Your task to perform on an android device: turn on sleep mode Image 0: 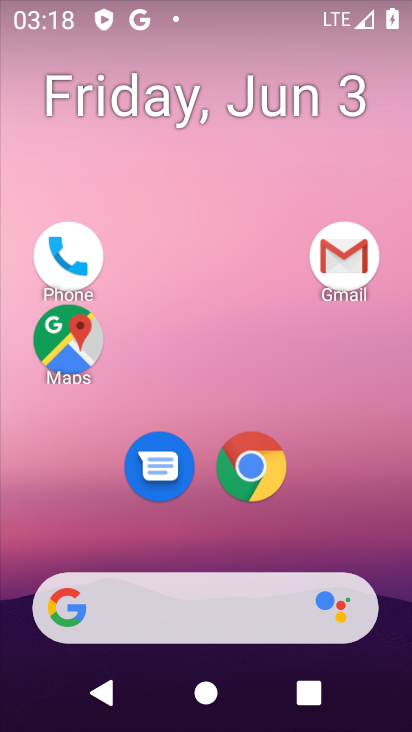
Step 0: drag from (205, 553) to (207, 138)
Your task to perform on an android device: turn on sleep mode Image 1: 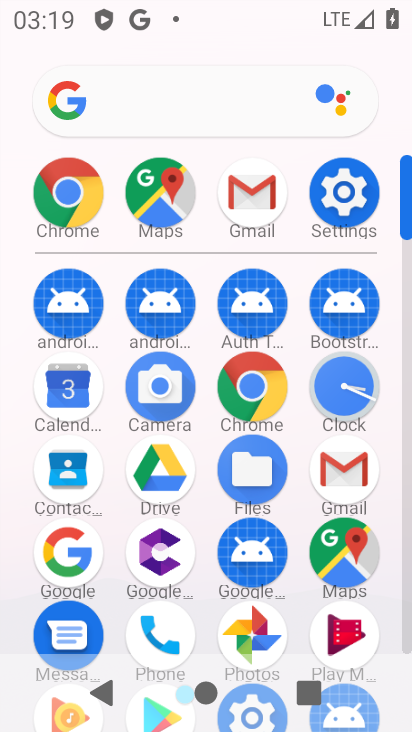
Step 1: click (343, 195)
Your task to perform on an android device: turn on sleep mode Image 2: 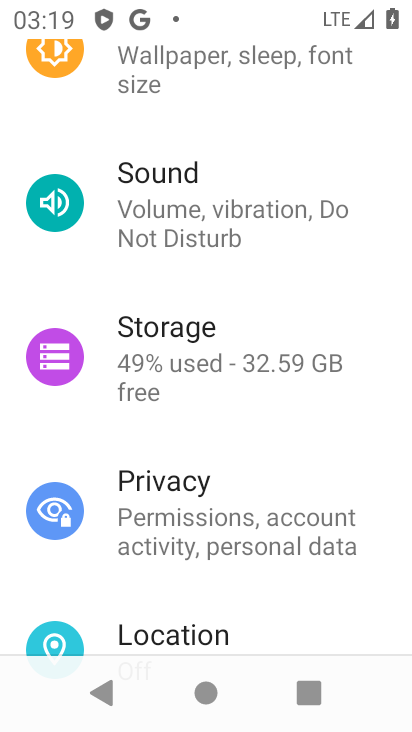
Step 2: task complete